Your task to perform on an android device: Search for macbook on amazon, select the first entry, and add it to the cart. Image 0: 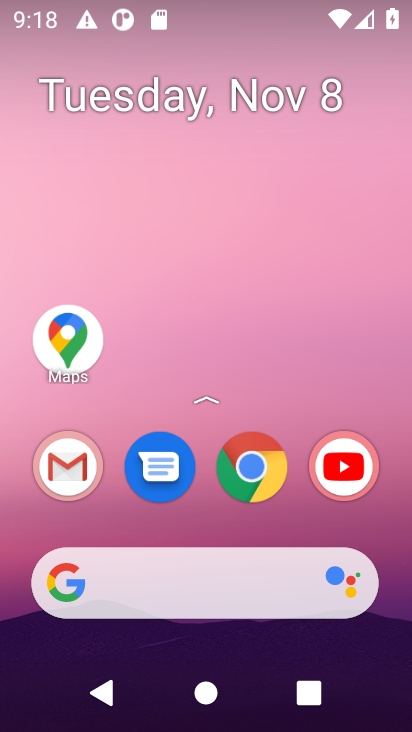
Step 0: click (240, 608)
Your task to perform on an android device: Search for macbook on amazon, select the first entry, and add it to the cart. Image 1: 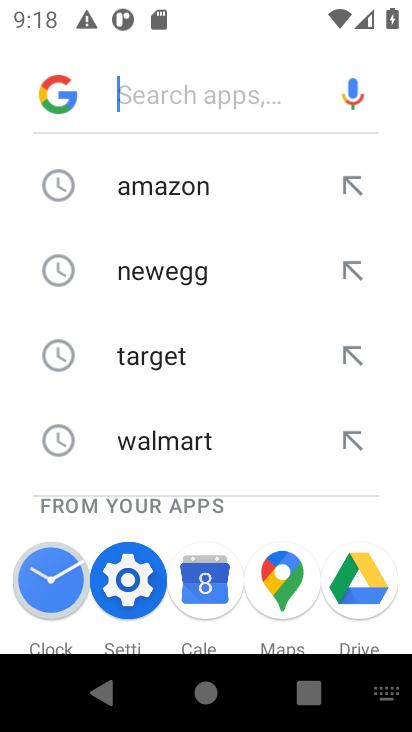
Step 1: click (255, 208)
Your task to perform on an android device: Search for macbook on amazon, select the first entry, and add it to the cart. Image 2: 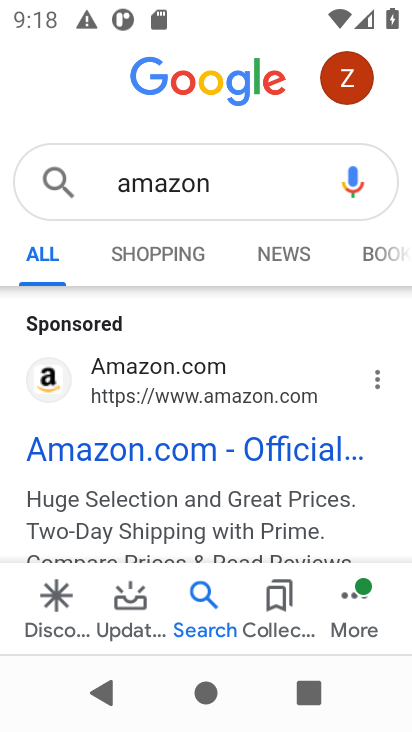
Step 2: click (165, 454)
Your task to perform on an android device: Search for macbook on amazon, select the first entry, and add it to the cart. Image 3: 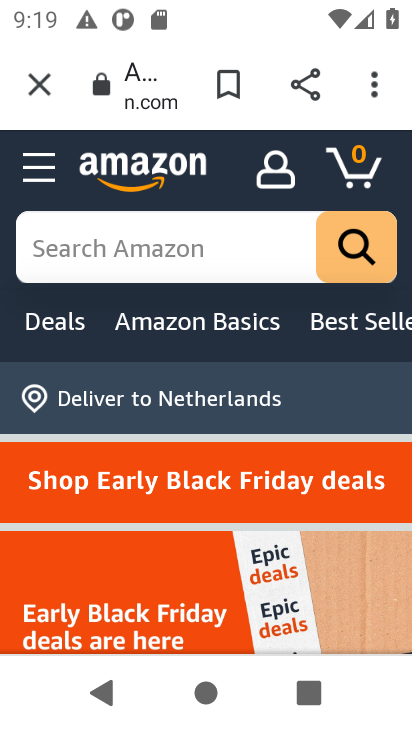
Step 3: click (171, 261)
Your task to perform on an android device: Search for macbook on amazon, select the first entry, and add it to the cart. Image 4: 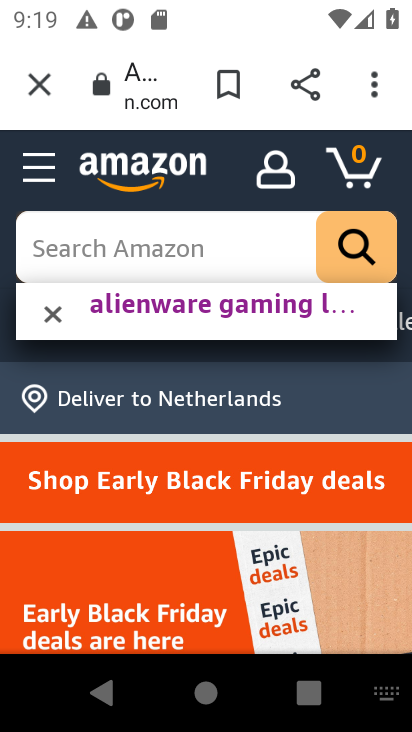
Step 4: type "macbook"
Your task to perform on an android device: Search for macbook on amazon, select the first entry, and add it to the cart. Image 5: 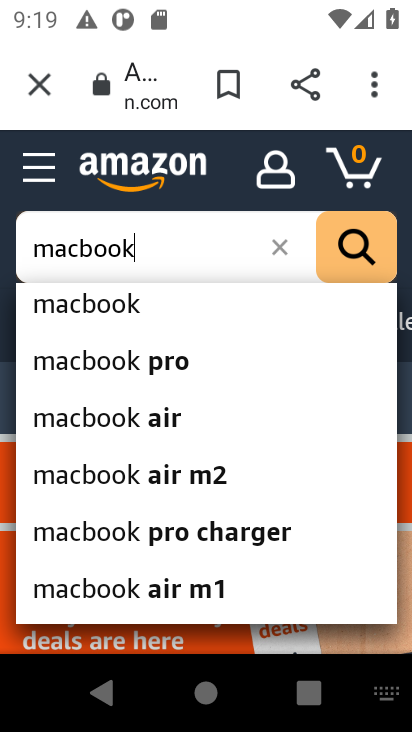
Step 5: click (96, 321)
Your task to perform on an android device: Search for macbook on amazon, select the first entry, and add it to the cart. Image 6: 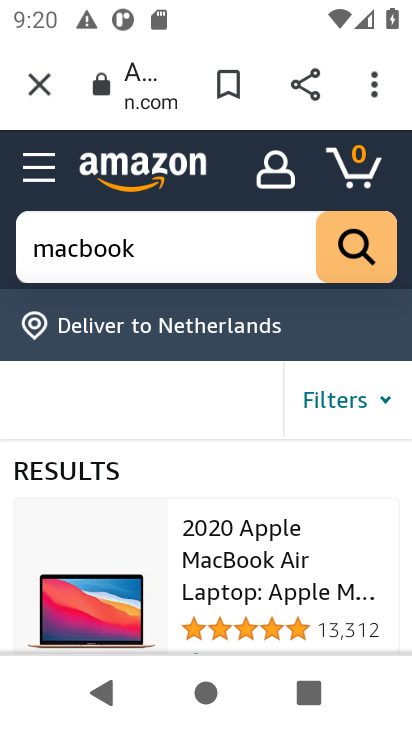
Step 6: click (300, 523)
Your task to perform on an android device: Search for macbook on amazon, select the first entry, and add it to the cart. Image 7: 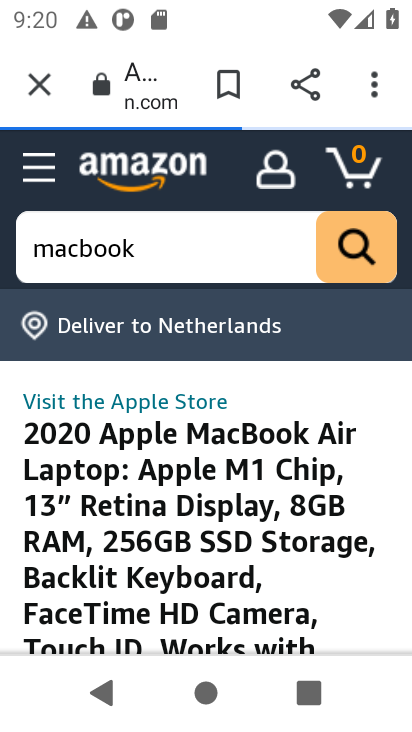
Step 7: task complete